Your task to perform on an android device: Open calendar and show me the third week of next month Image 0: 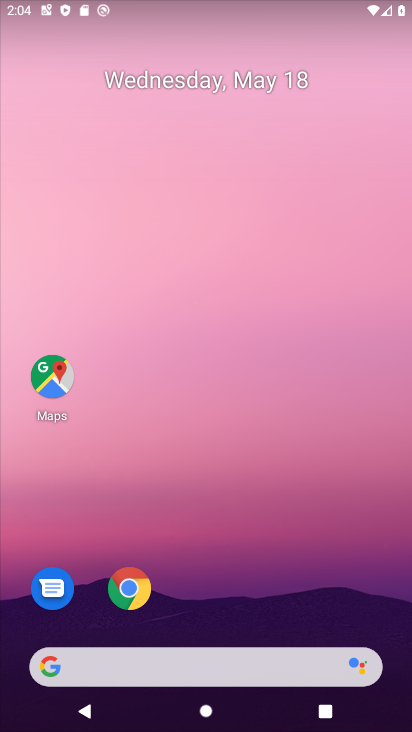
Step 0: drag from (370, 599) to (369, 243)
Your task to perform on an android device: Open calendar and show me the third week of next month Image 1: 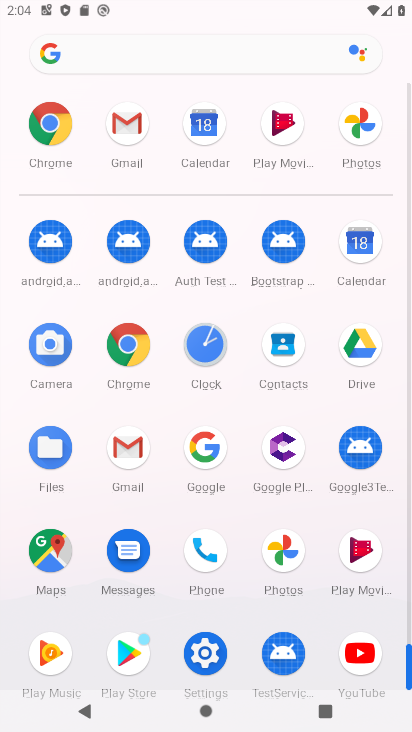
Step 1: press home button
Your task to perform on an android device: Open calendar and show me the third week of next month Image 2: 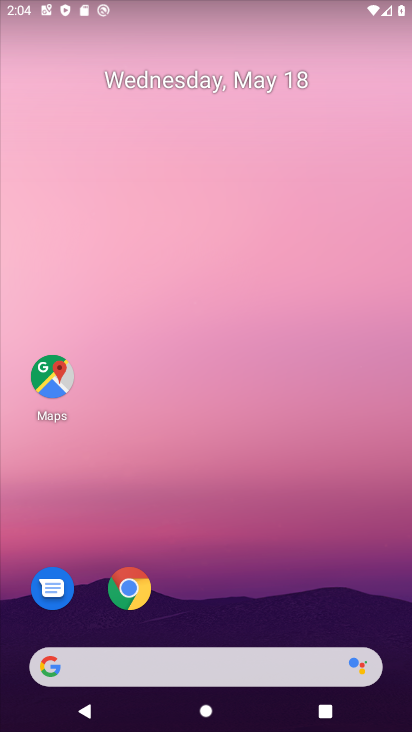
Step 2: drag from (336, 633) to (297, 105)
Your task to perform on an android device: Open calendar and show me the third week of next month Image 3: 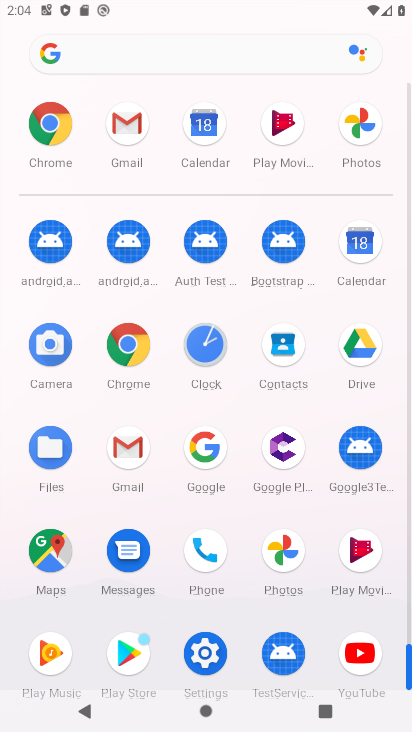
Step 3: click (361, 253)
Your task to perform on an android device: Open calendar and show me the third week of next month Image 4: 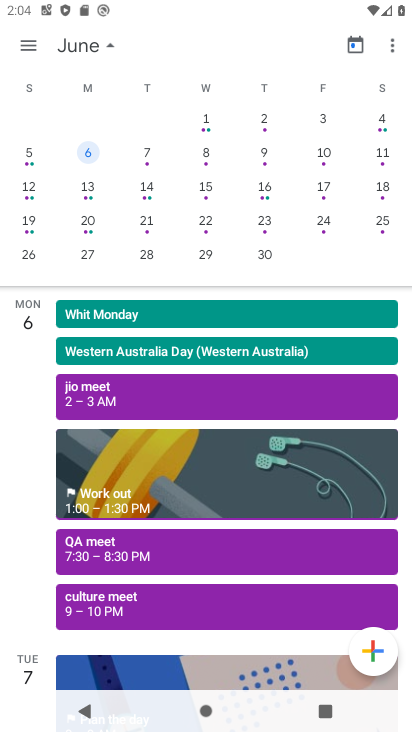
Step 4: click (83, 186)
Your task to perform on an android device: Open calendar and show me the third week of next month Image 5: 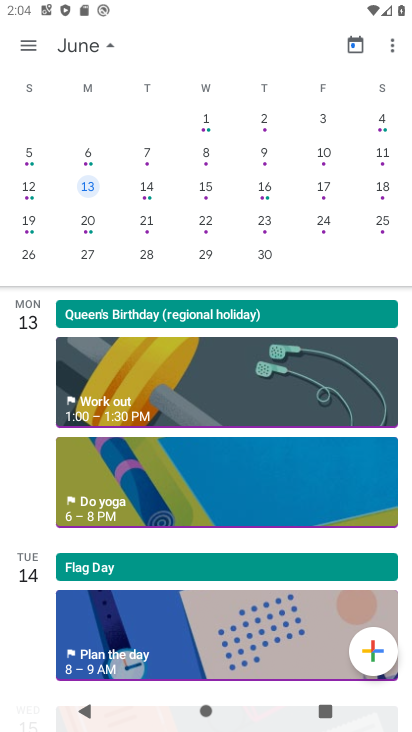
Step 5: task complete